Your task to perform on an android device: Go to Google Image 0: 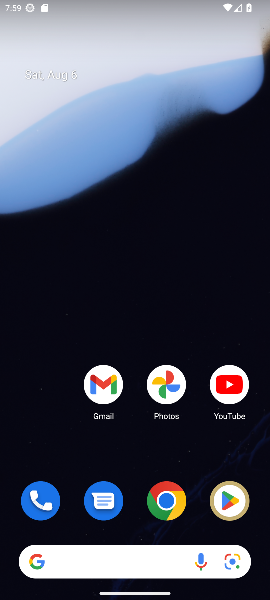
Step 0: click (64, 560)
Your task to perform on an android device: Go to Google Image 1: 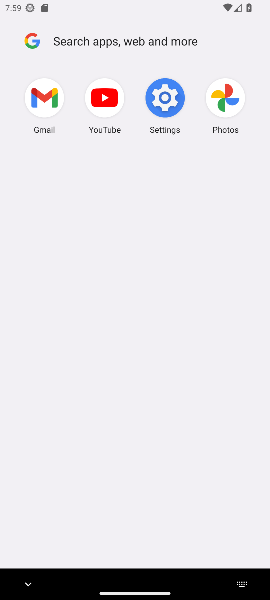
Step 1: task complete